Your task to perform on an android device: Open Chrome and go to settings Image 0: 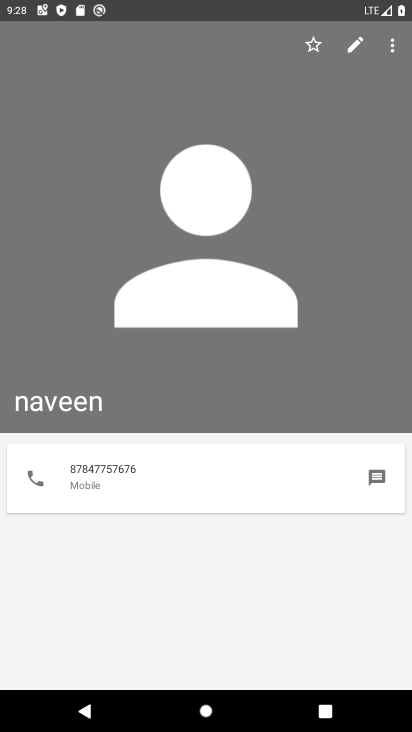
Step 0: press home button
Your task to perform on an android device: Open Chrome and go to settings Image 1: 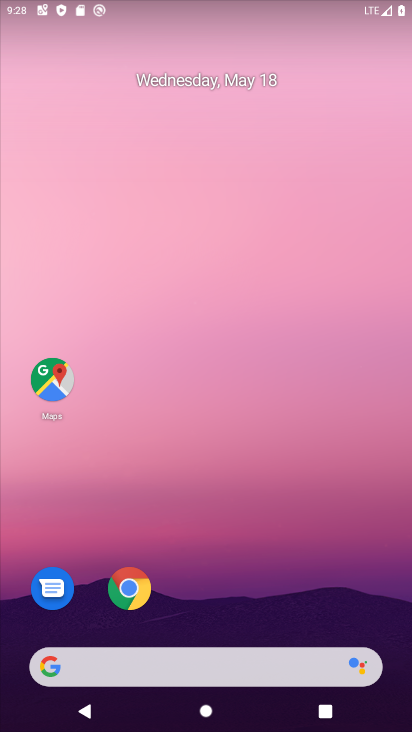
Step 1: click (131, 600)
Your task to perform on an android device: Open Chrome and go to settings Image 2: 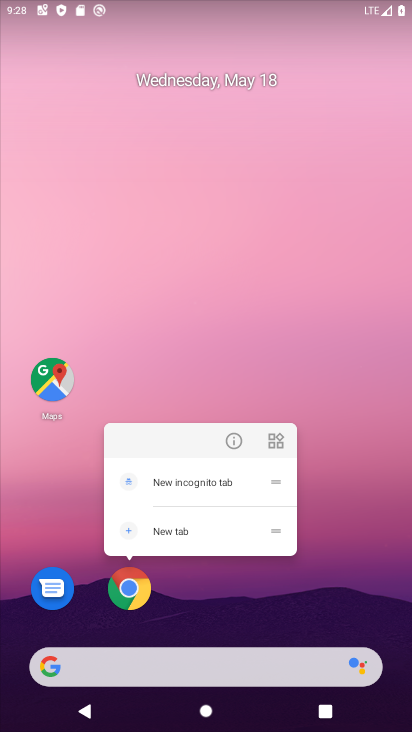
Step 2: click (297, 563)
Your task to perform on an android device: Open Chrome and go to settings Image 3: 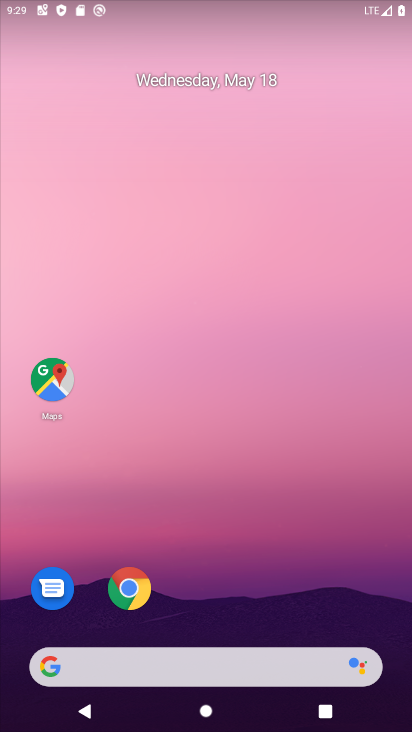
Step 3: click (135, 592)
Your task to perform on an android device: Open Chrome and go to settings Image 4: 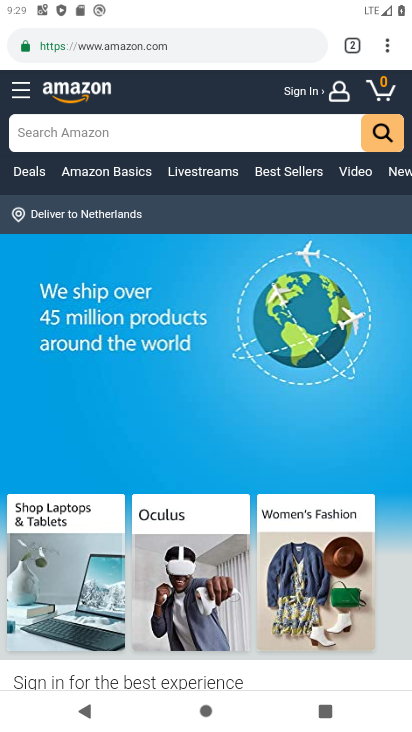
Step 4: click (390, 43)
Your task to perform on an android device: Open Chrome and go to settings Image 5: 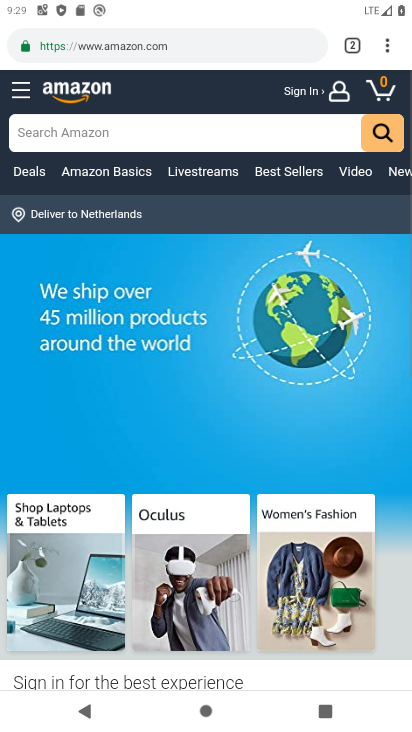
Step 5: click (390, 43)
Your task to perform on an android device: Open Chrome and go to settings Image 6: 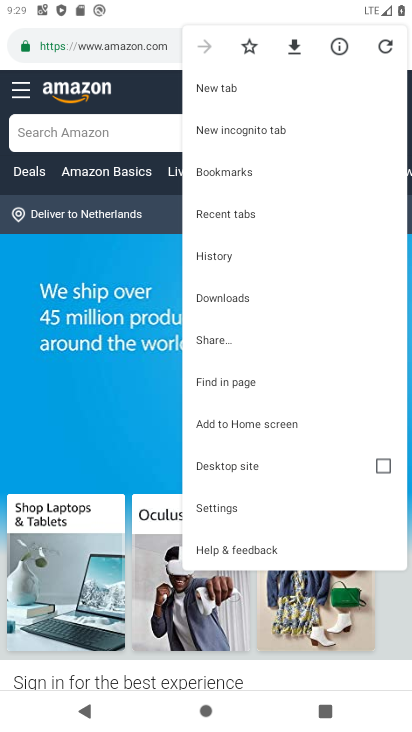
Step 6: click (229, 506)
Your task to perform on an android device: Open Chrome and go to settings Image 7: 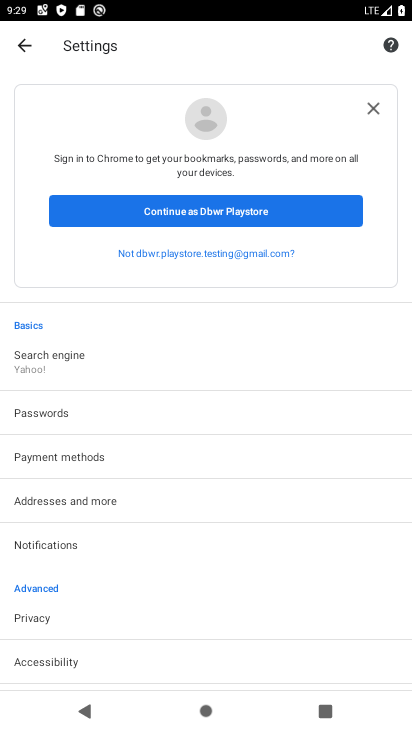
Step 7: task complete